Your task to perform on an android device: Go to wifi settings Image 0: 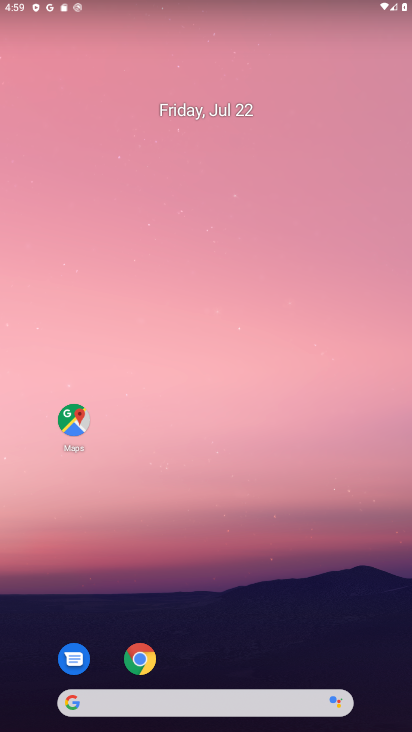
Step 0: drag from (218, 675) to (234, 39)
Your task to perform on an android device: Go to wifi settings Image 1: 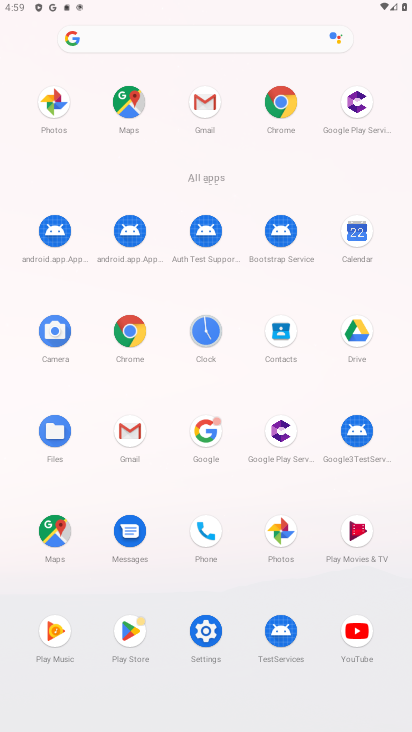
Step 1: click (207, 628)
Your task to perform on an android device: Go to wifi settings Image 2: 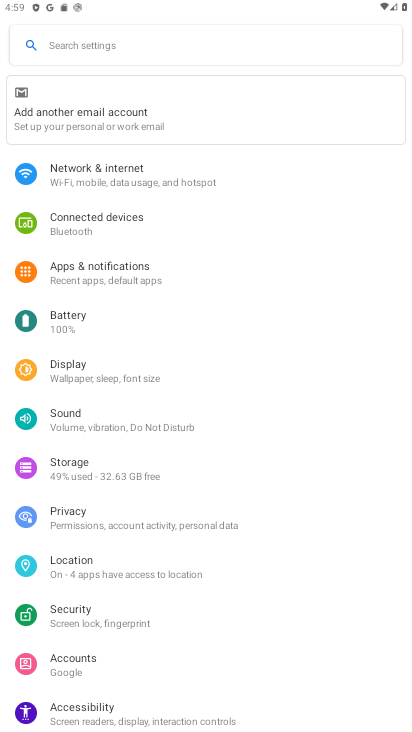
Step 2: click (123, 170)
Your task to perform on an android device: Go to wifi settings Image 3: 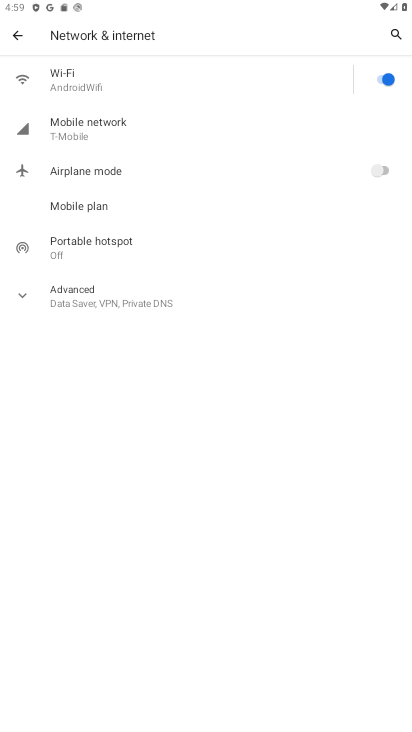
Step 3: click (125, 75)
Your task to perform on an android device: Go to wifi settings Image 4: 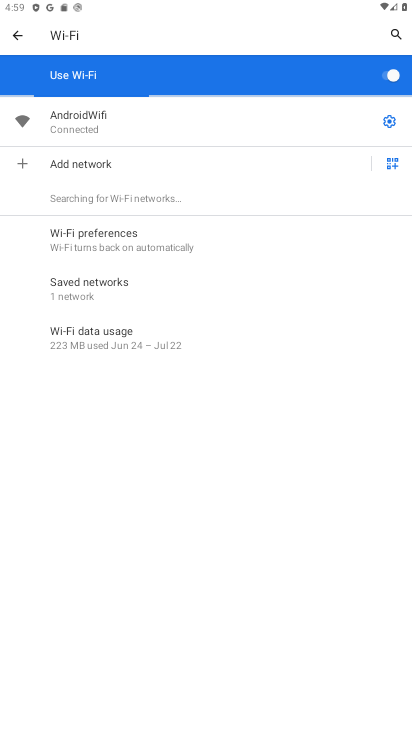
Step 4: task complete